Your task to perform on an android device: Open the stopwatch Image 0: 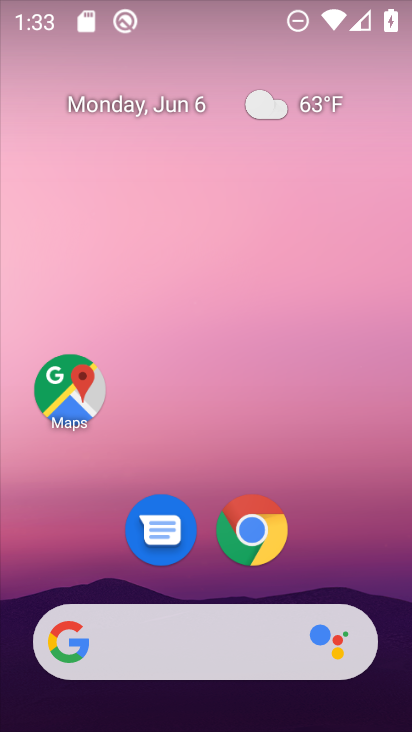
Step 0: drag from (323, 455) to (217, 86)
Your task to perform on an android device: Open the stopwatch Image 1: 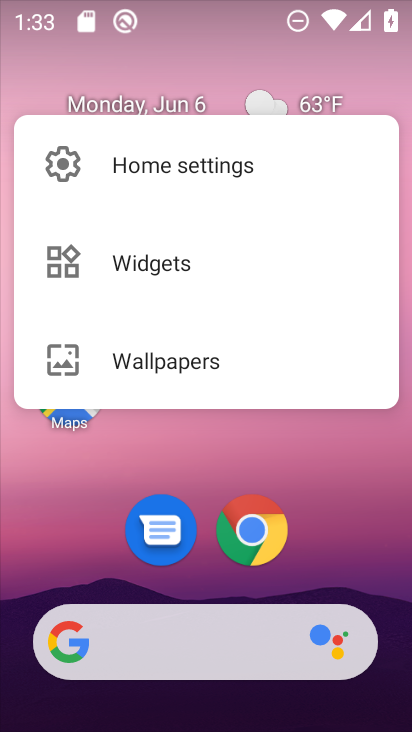
Step 1: press back button
Your task to perform on an android device: Open the stopwatch Image 2: 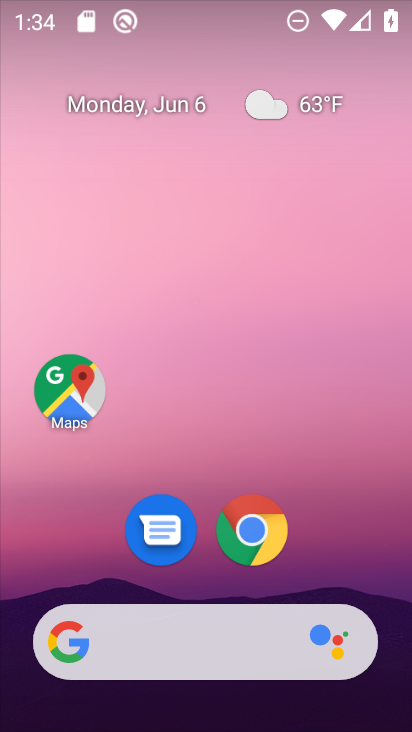
Step 2: drag from (339, 539) to (296, 176)
Your task to perform on an android device: Open the stopwatch Image 3: 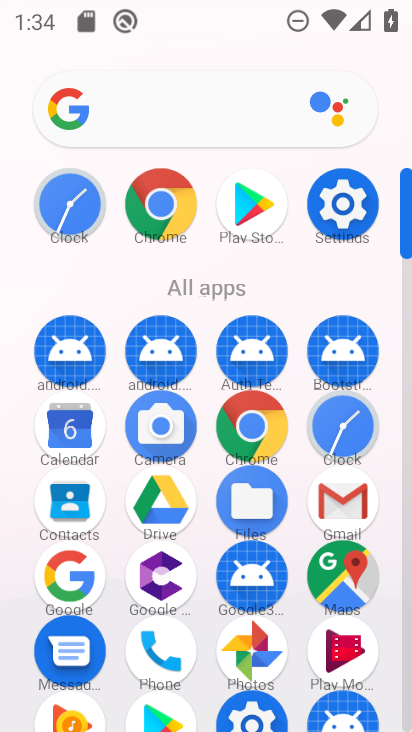
Step 3: click (344, 424)
Your task to perform on an android device: Open the stopwatch Image 4: 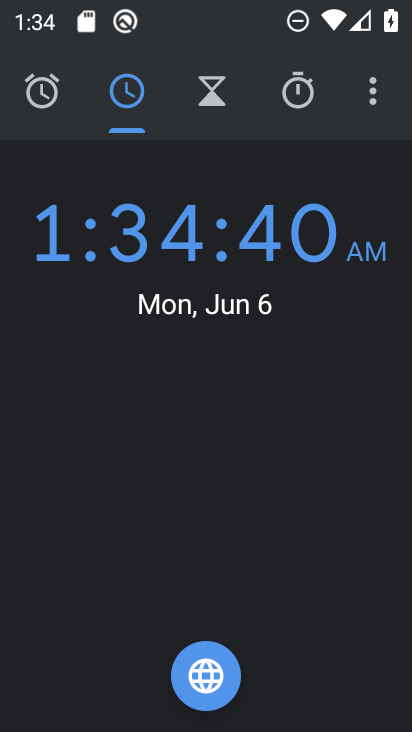
Step 4: click (298, 94)
Your task to perform on an android device: Open the stopwatch Image 5: 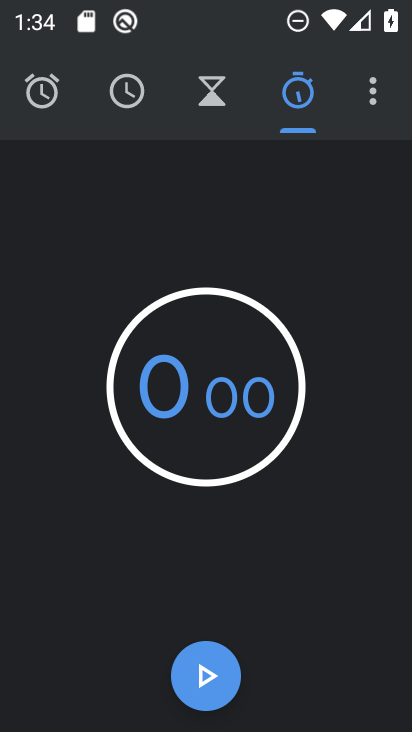
Step 5: click (298, 94)
Your task to perform on an android device: Open the stopwatch Image 6: 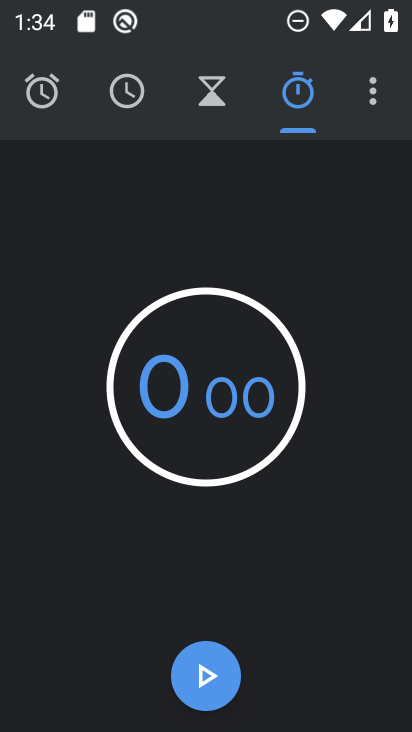
Step 6: click (207, 678)
Your task to perform on an android device: Open the stopwatch Image 7: 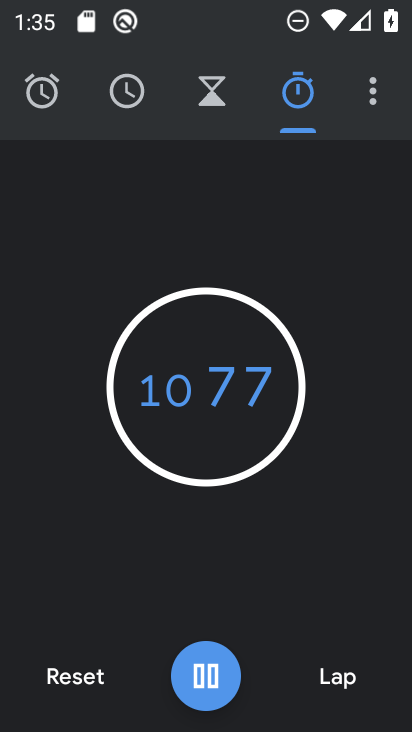
Step 7: click (207, 678)
Your task to perform on an android device: Open the stopwatch Image 8: 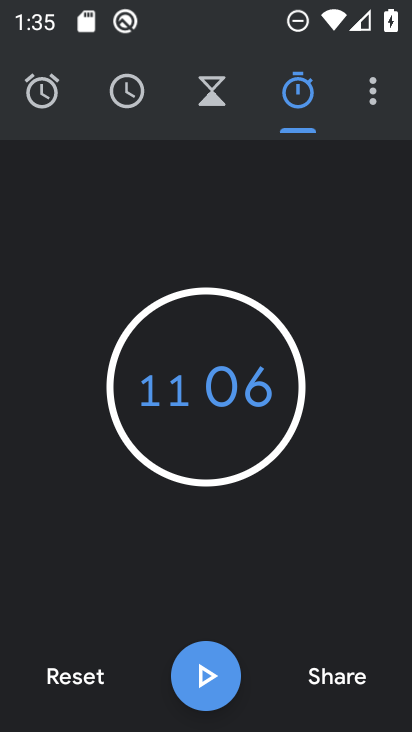
Step 8: task complete